Your task to perform on an android device: Search for usb-b on costco.com, select the first entry, and add it to the cart. Image 0: 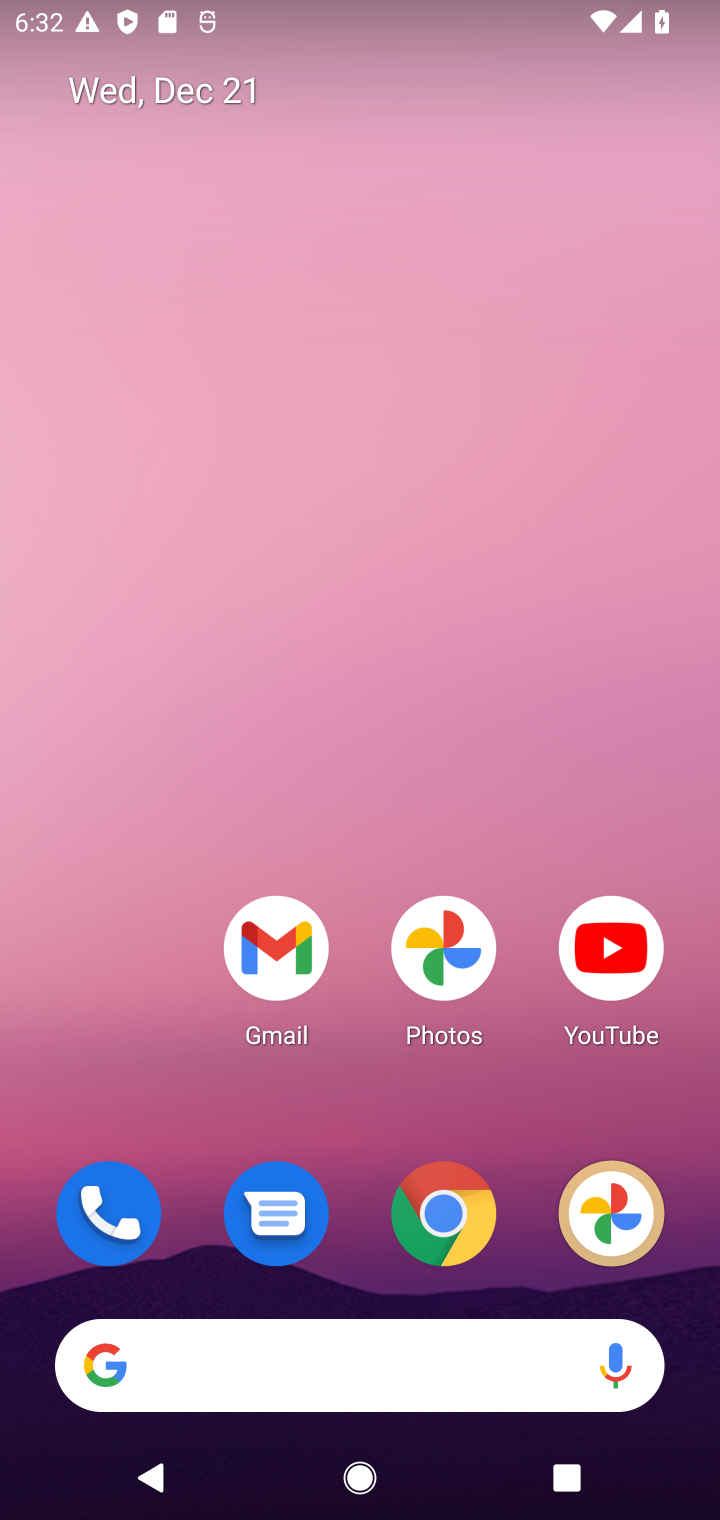
Step 0: press home button
Your task to perform on an android device: Search for usb-b on costco.com, select the first entry, and add it to the cart. Image 1: 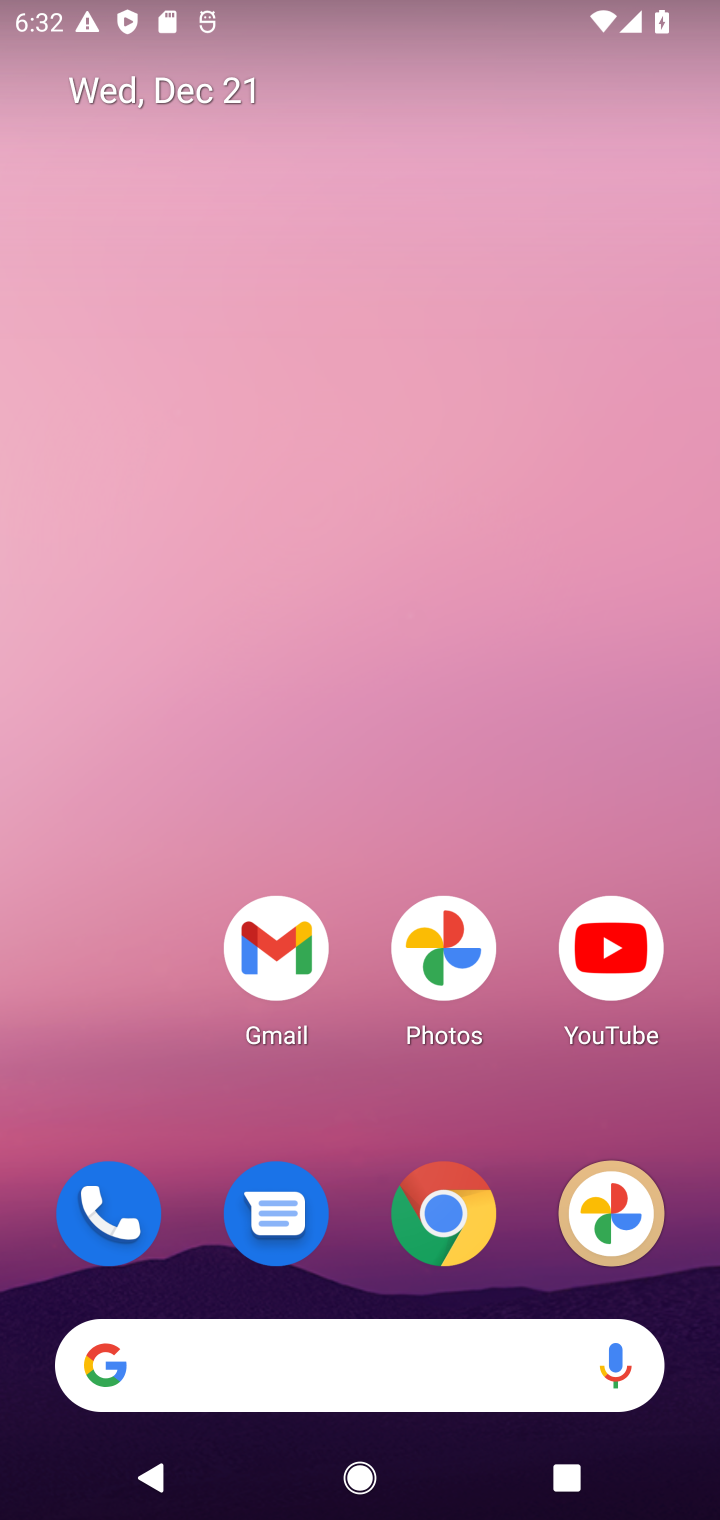
Step 1: click (475, 1201)
Your task to perform on an android device: Search for usb-b on costco.com, select the first entry, and add it to the cart. Image 2: 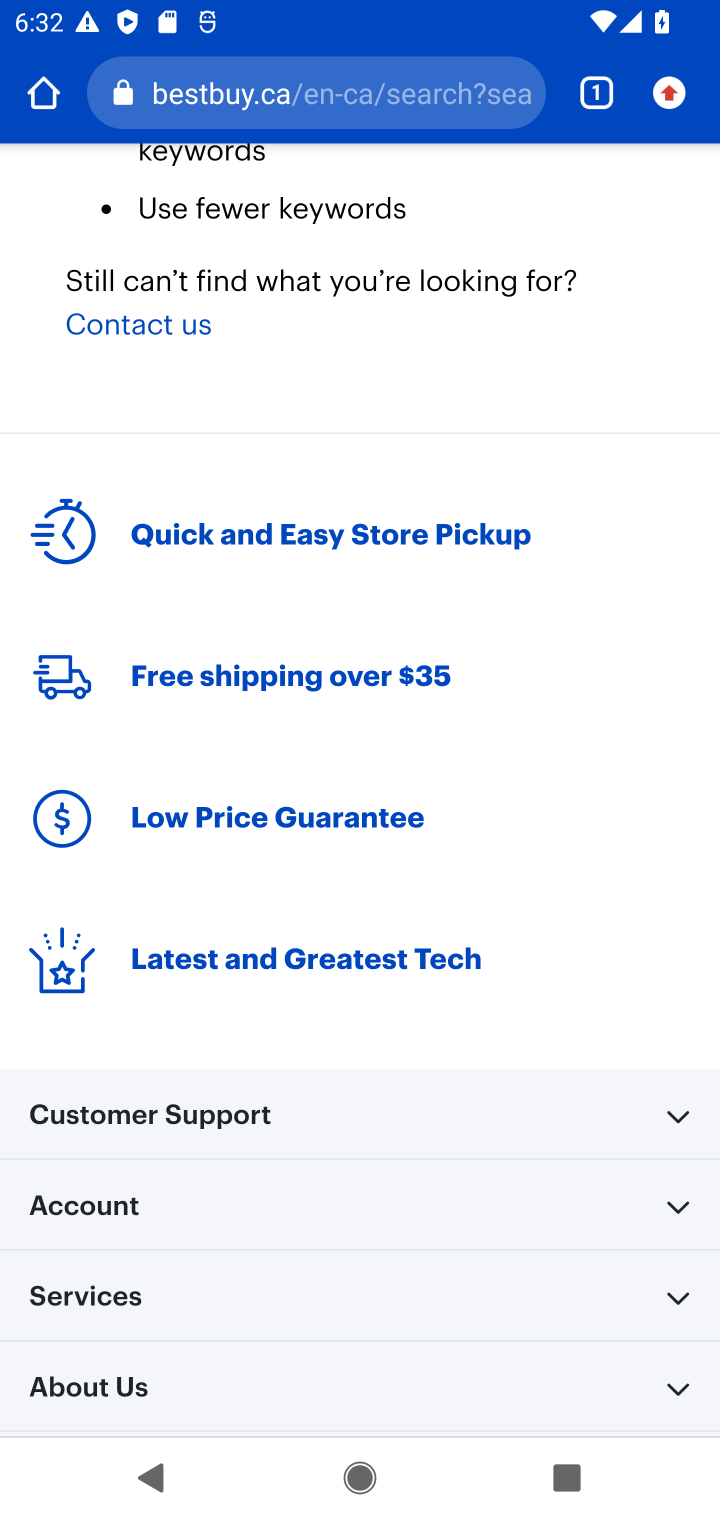
Step 2: click (270, 114)
Your task to perform on an android device: Search for usb-b on costco.com, select the first entry, and add it to the cart. Image 3: 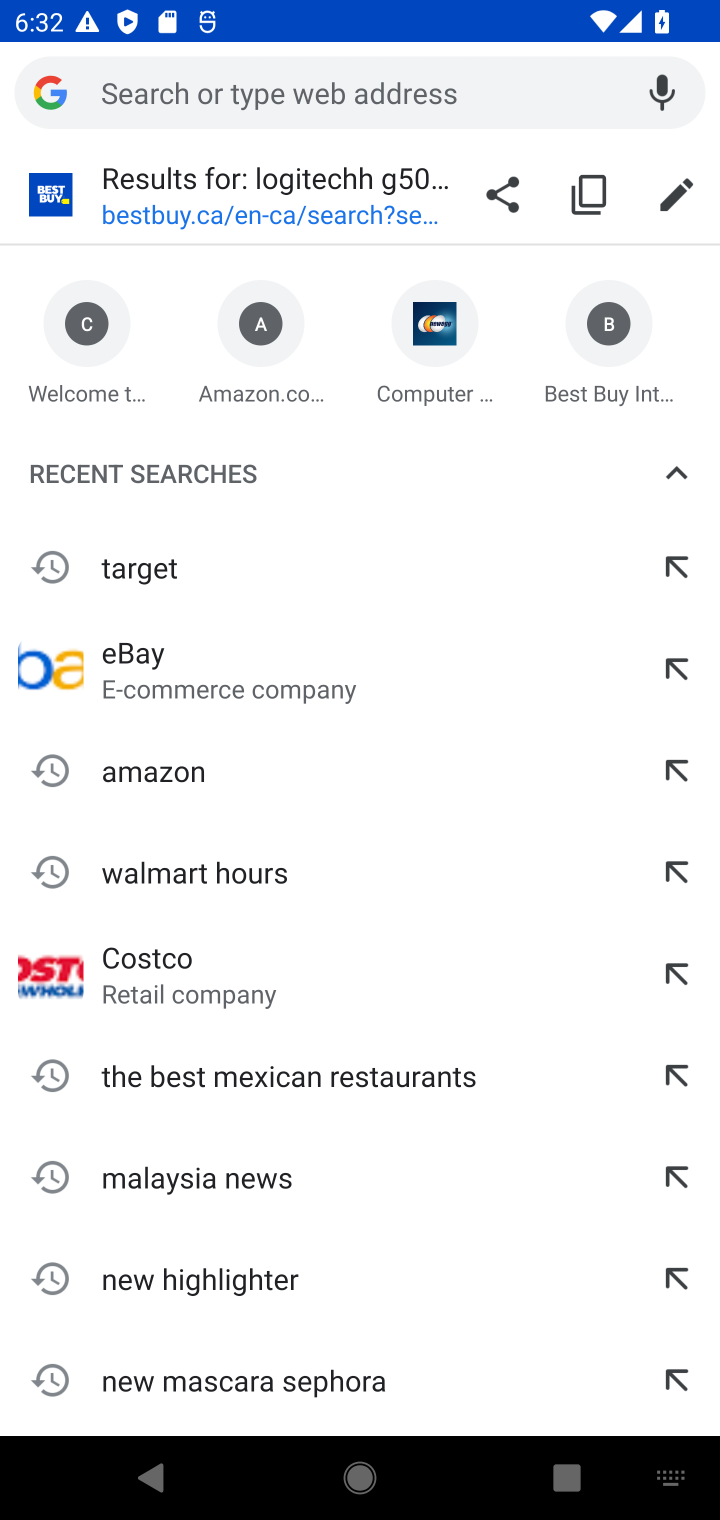
Step 3: type "costco"
Your task to perform on an android device: Search for usb-b on costco.com, select the first entry, and add it to the cart. Image 4: 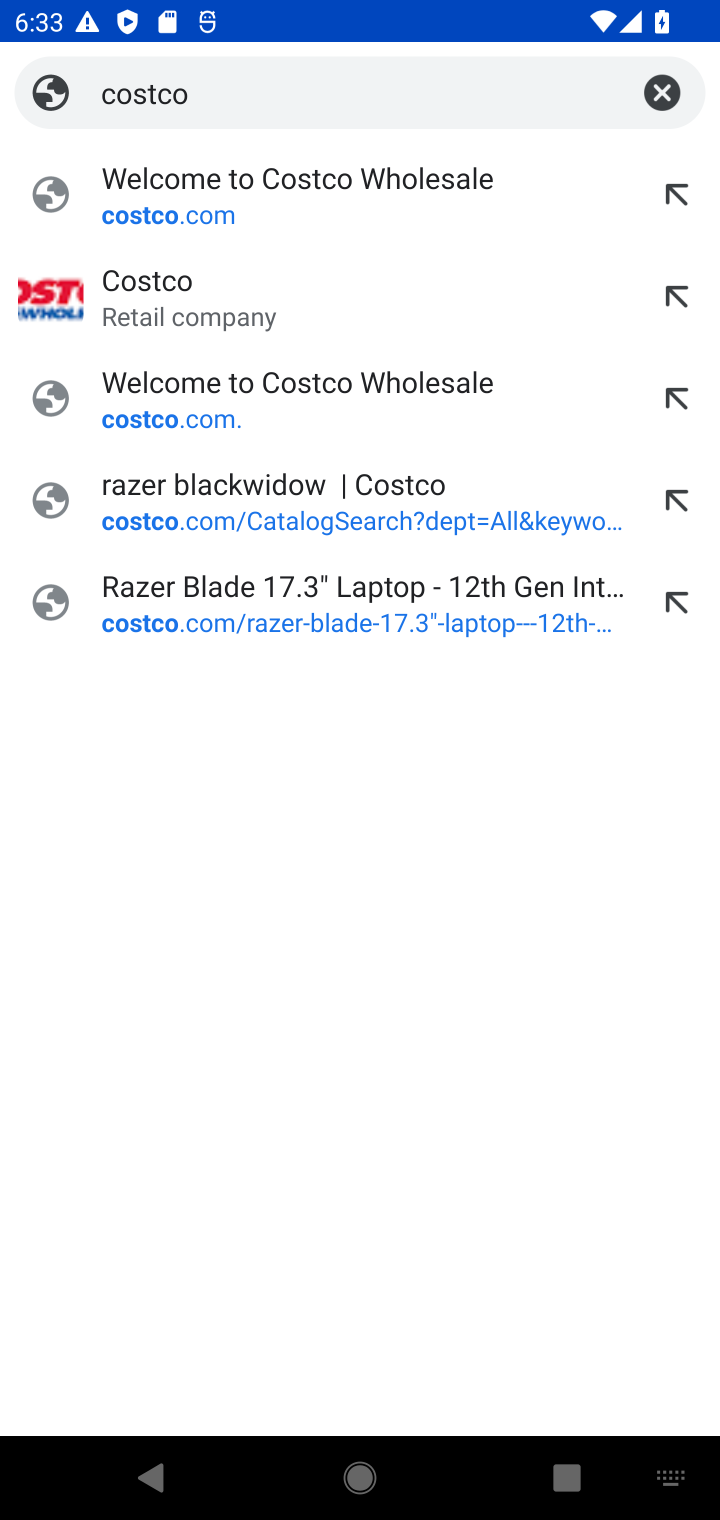
Step 4: click (194, 196)
Your task to perform on an android device: Search for usb-b on costco.com, select the first entry, and add it to the cart. Image 5: 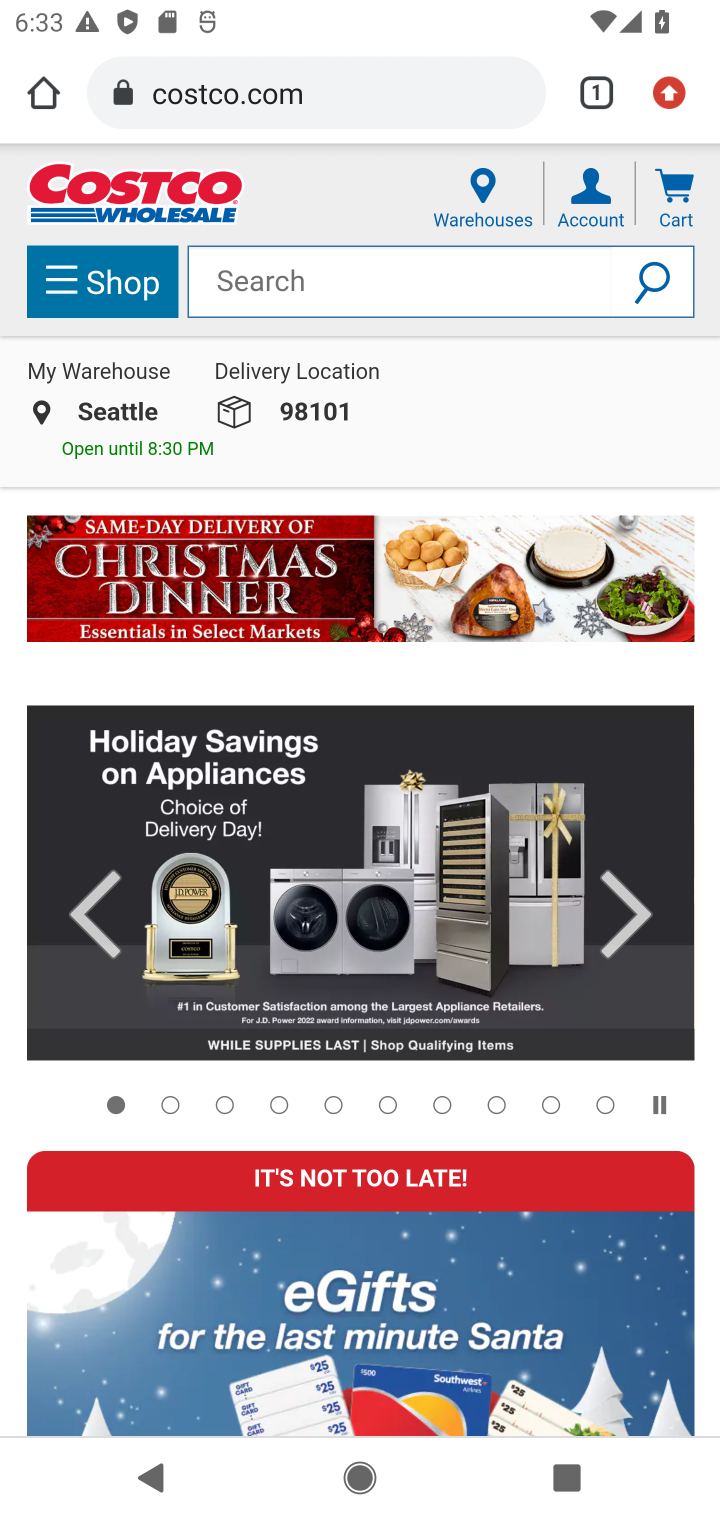
Step 5: click (241, 278)
Your task to perform on an android device: Search for usb-b on costco.com, select the first entry, and add it to the cart. Image 6: 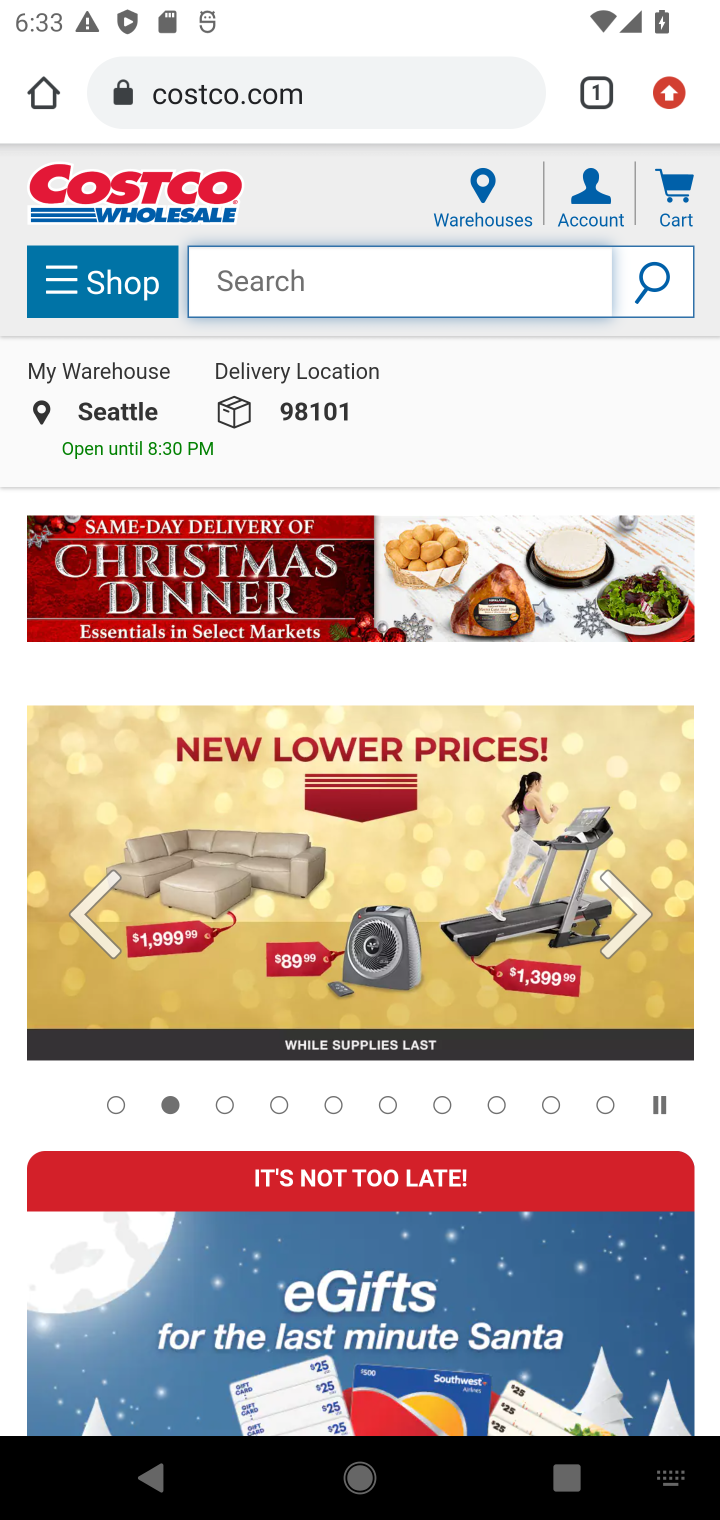
Step 6: type "usb-b"
Your task to perform on an android device: Search for usb-b on costco.com, select the first entry, and add it to the cart. Image 7: 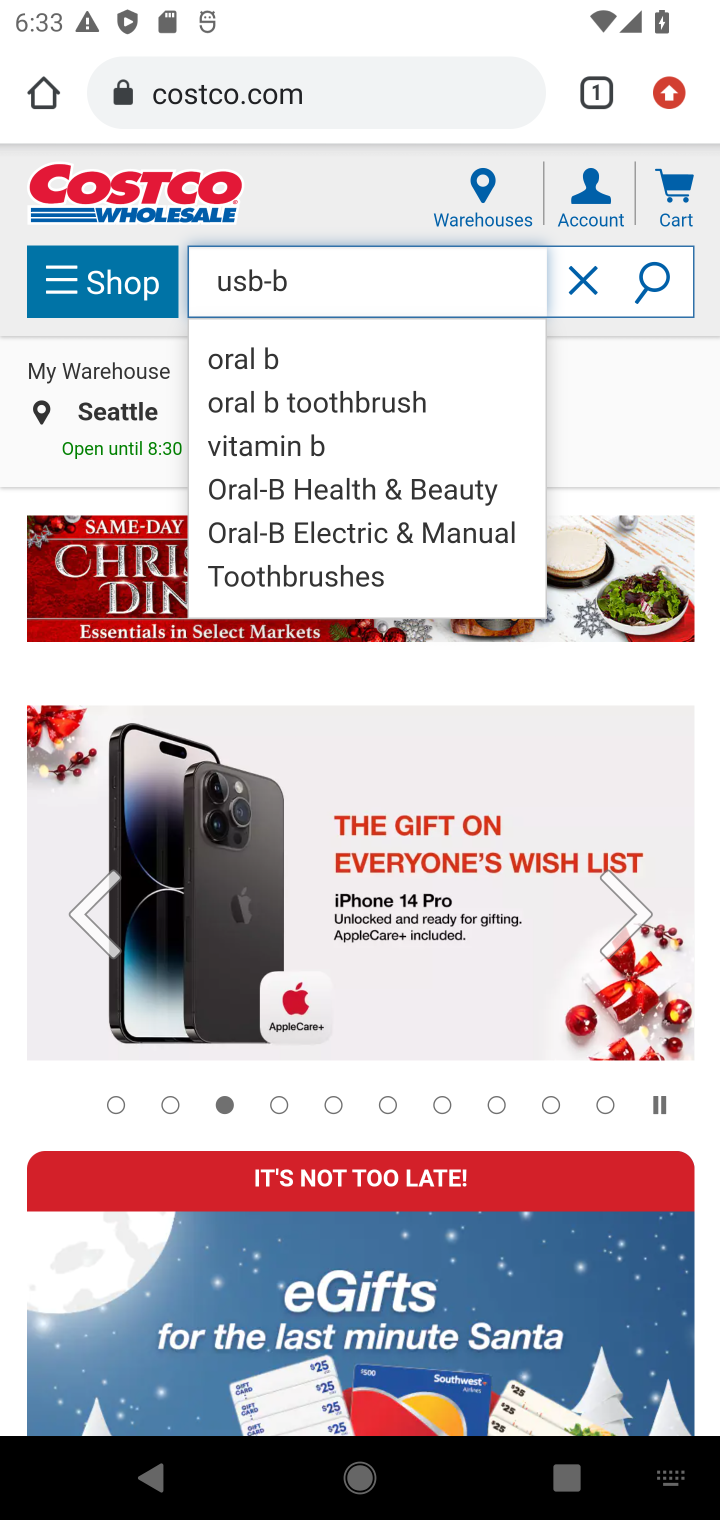
Step 7: click (643, 306)
Your task to perform on an android device: Search for usb-b on costco.com, select the first entry, and add it to the cart. Image 8: 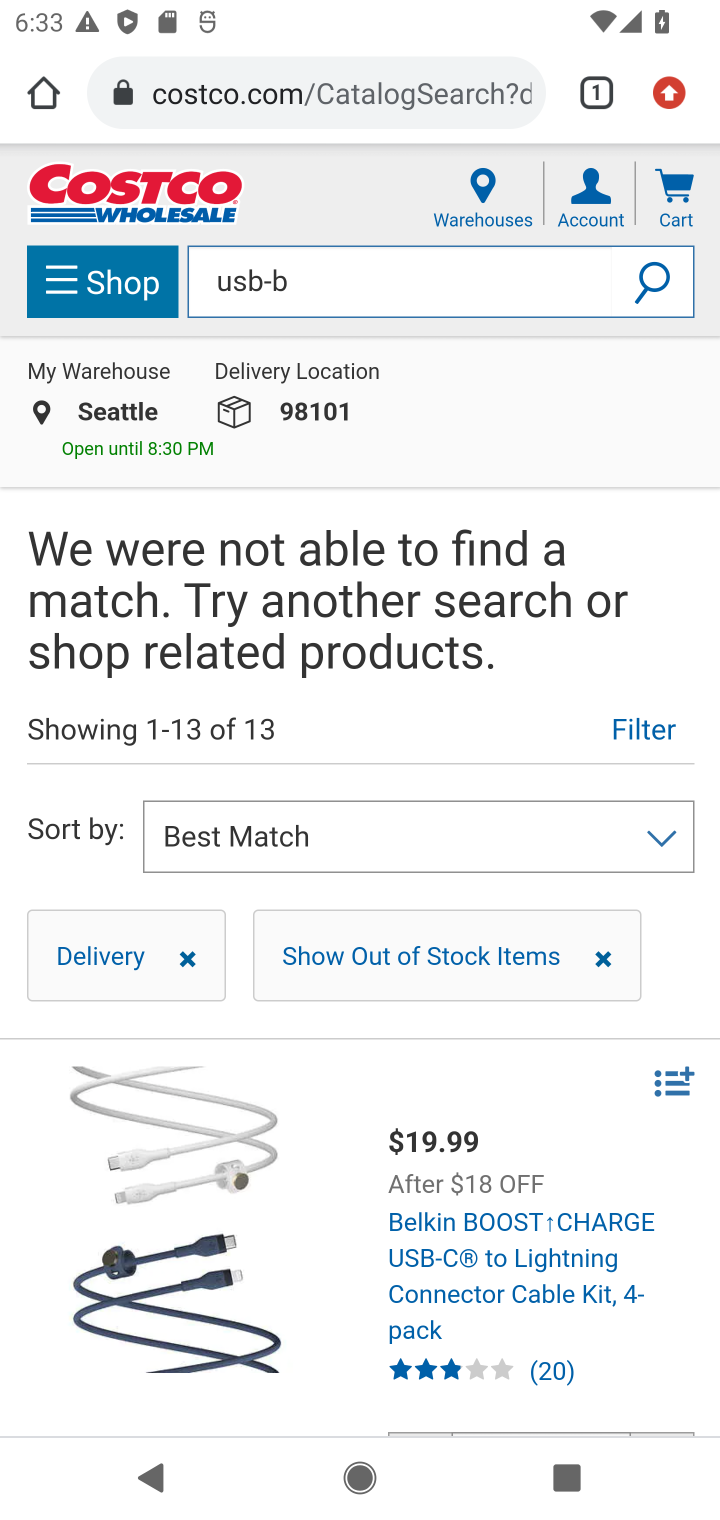
Step 8: click (500, 1243)
Your task to perform on an android device: Search for usb-b on costco.com, select the first entry, and add it to the cart. Image 9: 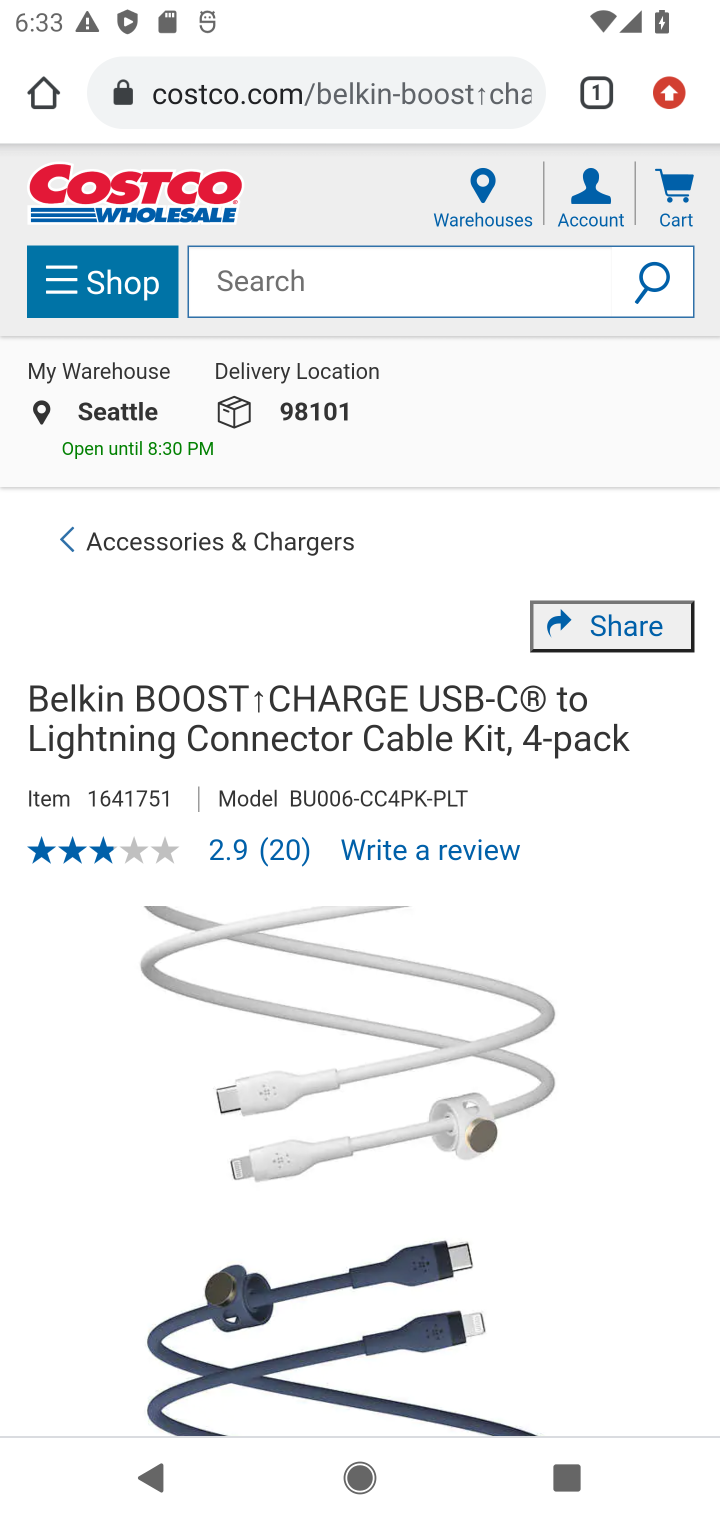
Step 9: drag from (432, 1387) to (310, 614)
Your task to perform on an android device: Search for usb-b on costco.com, select the first entry, and add it to the cart. Image 10: 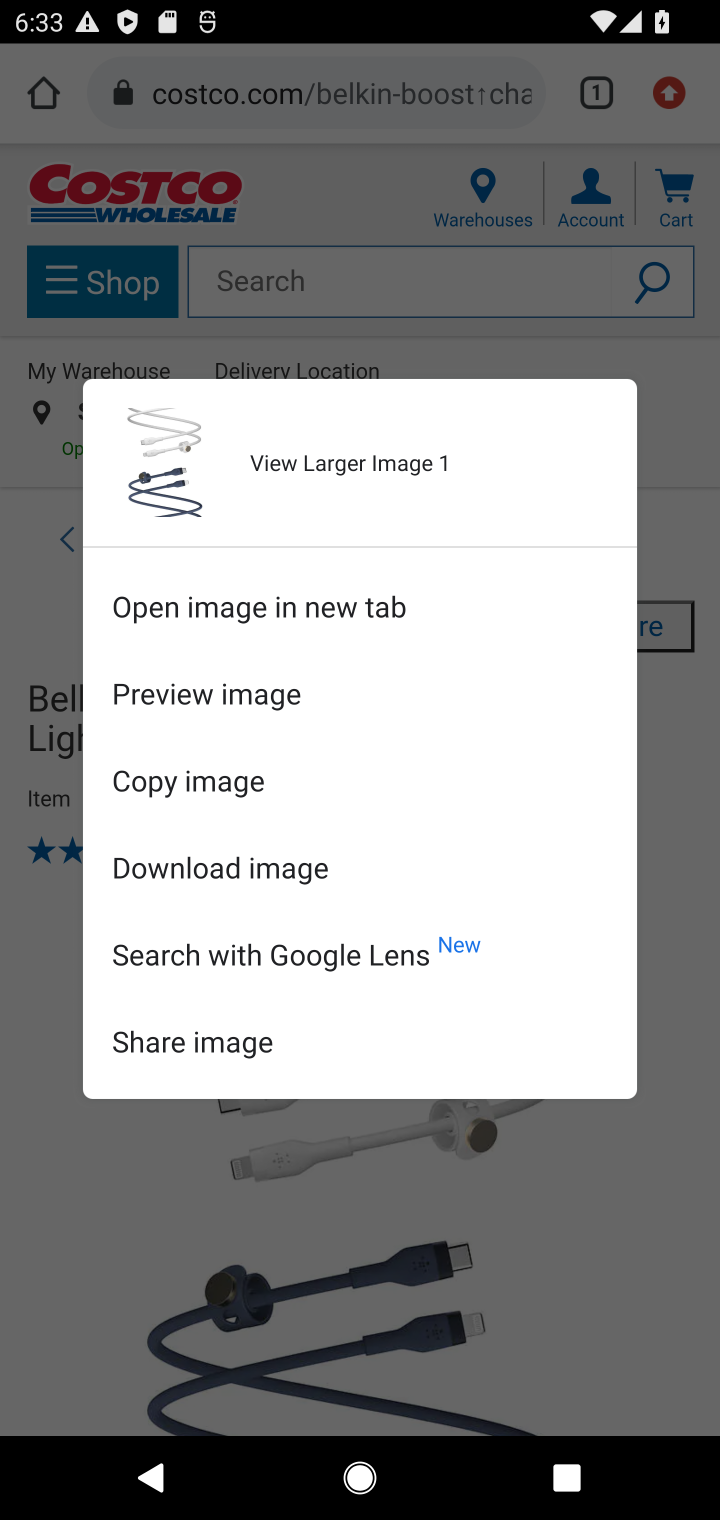
Step 10: click (456, 1190)
Your task to perform on an android device: Search for usb-b on costco.com, select the first entry, and add it to the cart. Image 11: 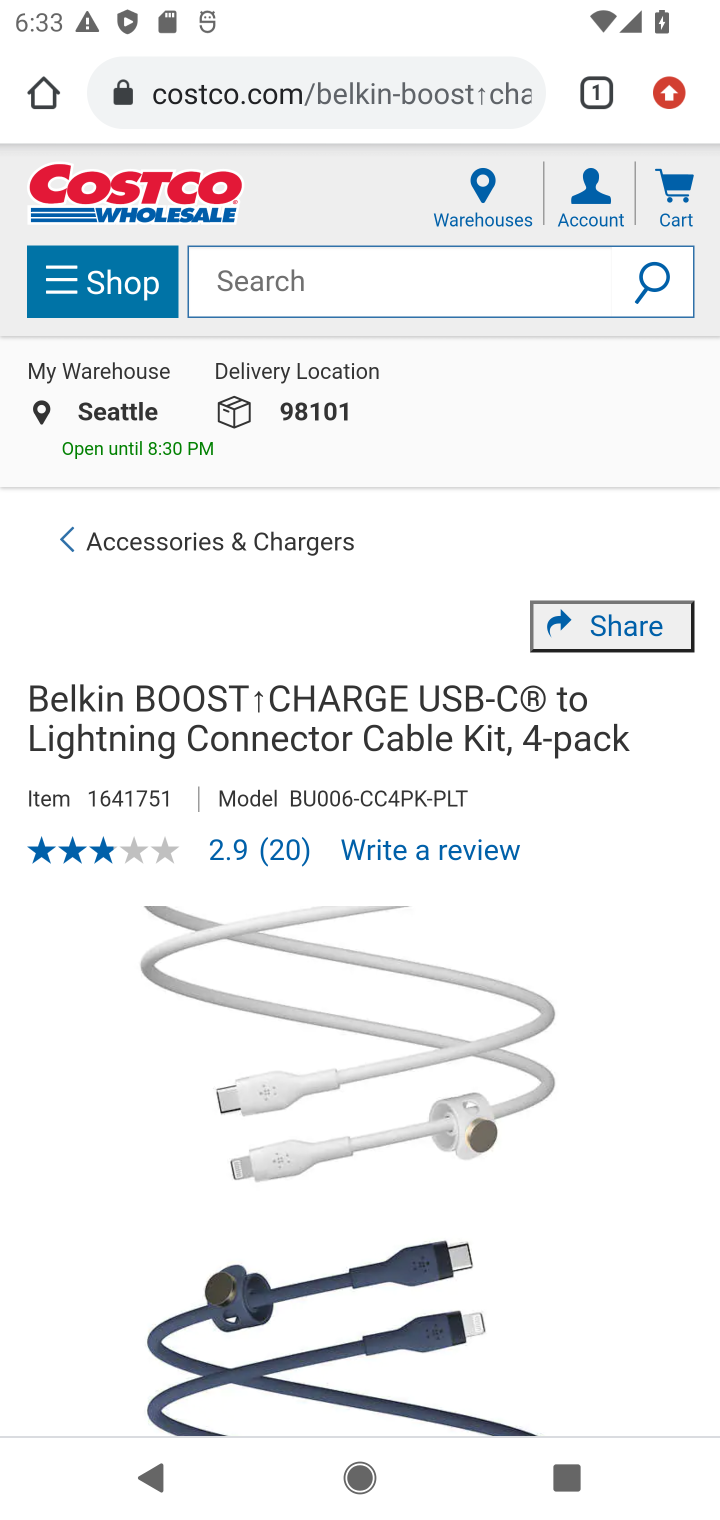
Step 11: drag from (486, 1333) to (525, 784)
Your task to perform on an android device: Search for usb-b on costco.com, select the first entry, and add it to the cart. Image 12: 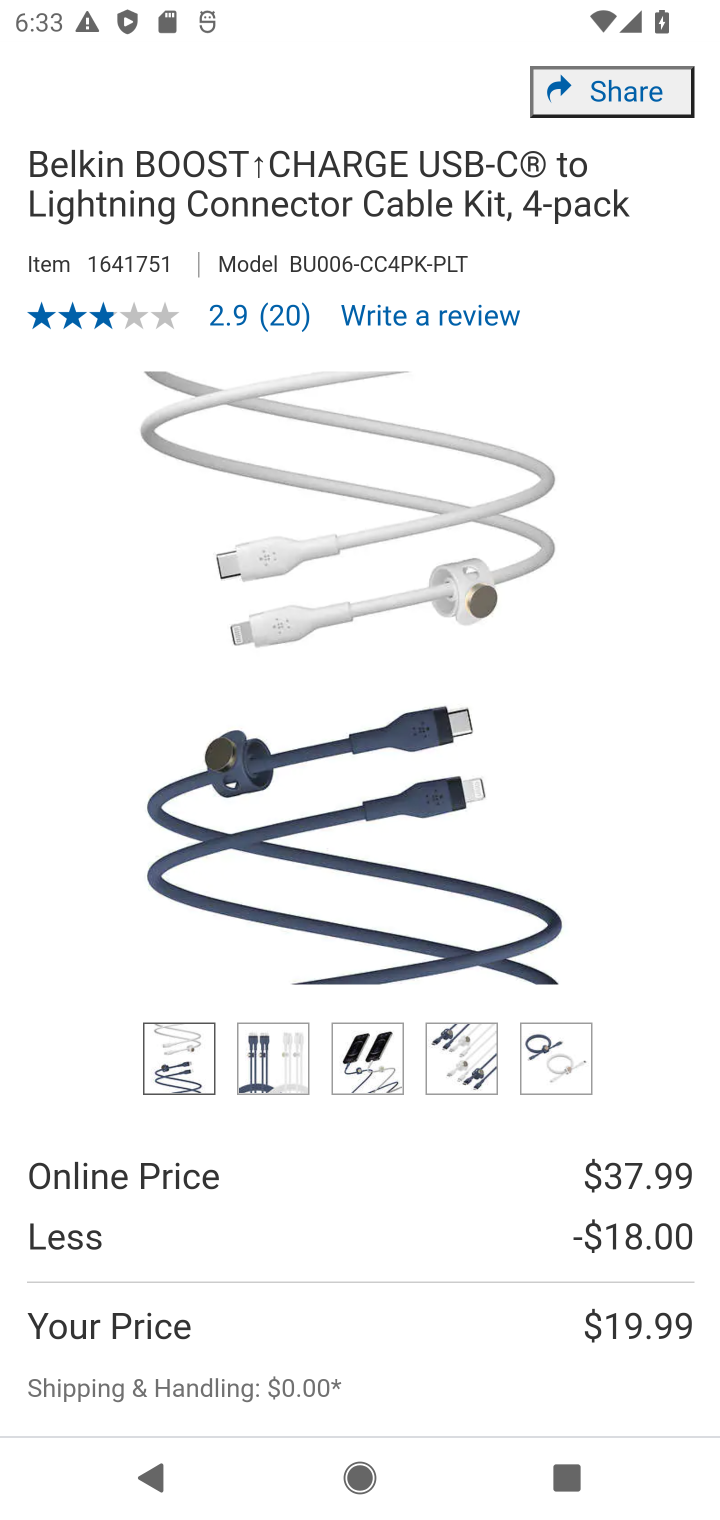
Step 12: drag from (483, 1256) to (521, 881)
Your task to perform on an android device: Search for usb-b on costco.com, select the first entry, and add it to the cart. Image 13: 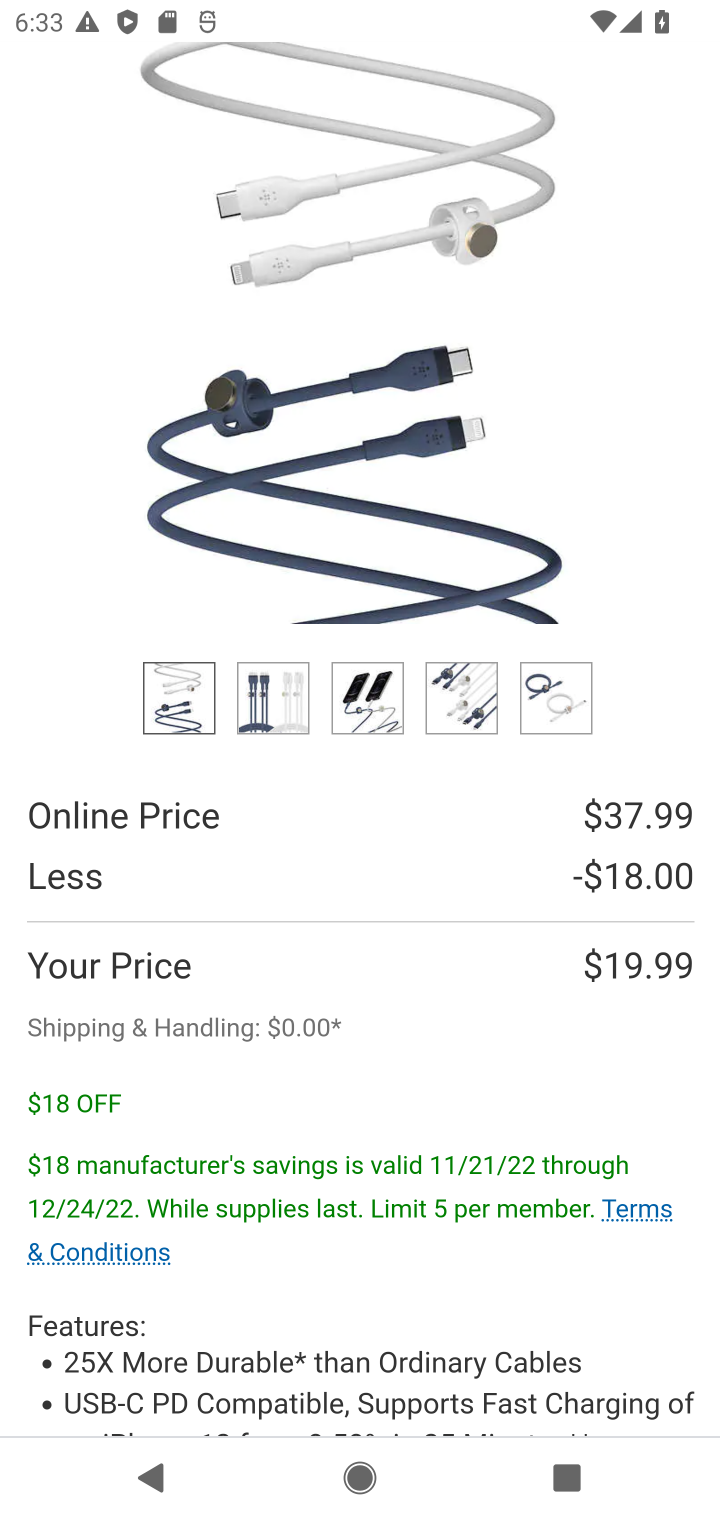
Step 13: drag from (536, 1304) to (540, 601)
Your task to perform on an android device: Search for usb-b on costco.com, select the first entry, and add it to the cart. Image 14: 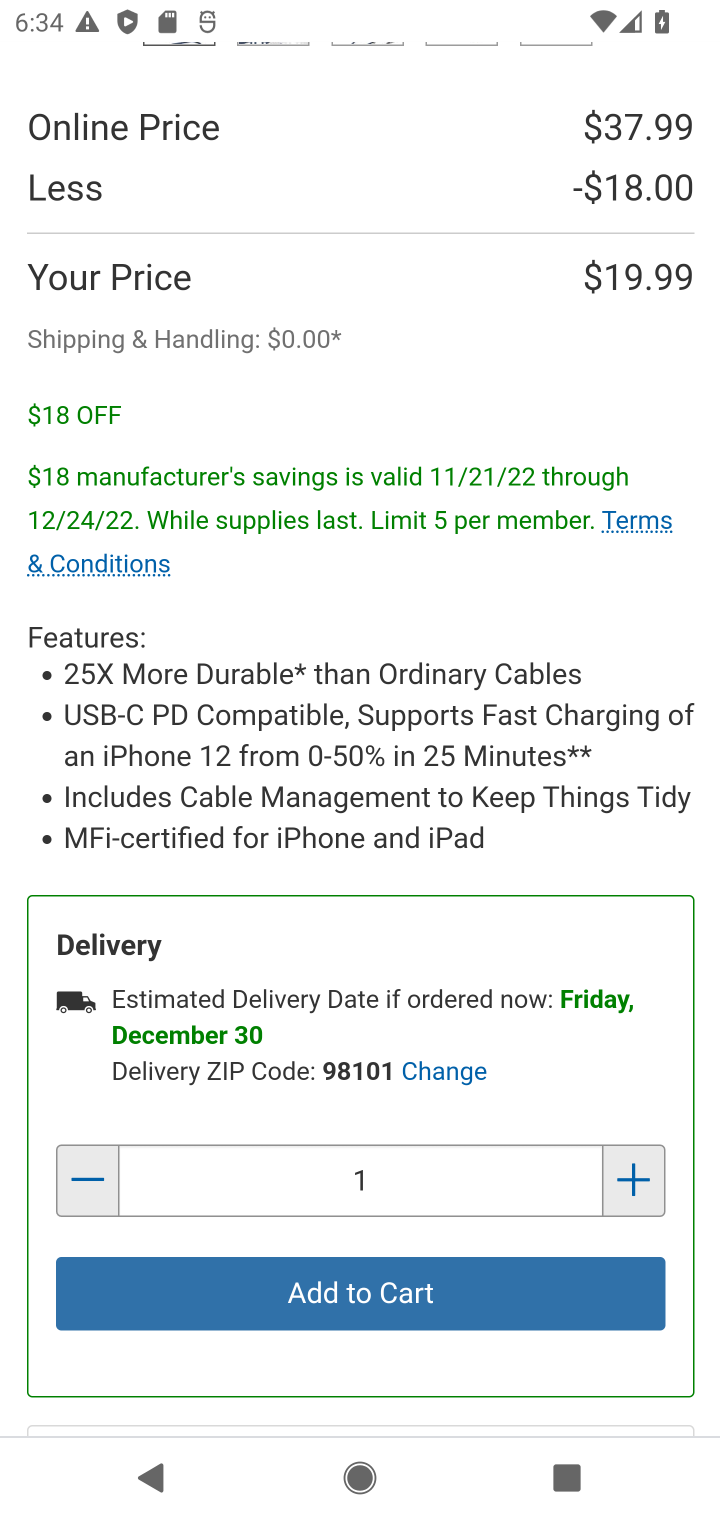
Step 14: click (490, 1267)
Your task to perform on an android device: Search for usb-b on costco.com, select the first entry, and add it to the cart. Image 15: 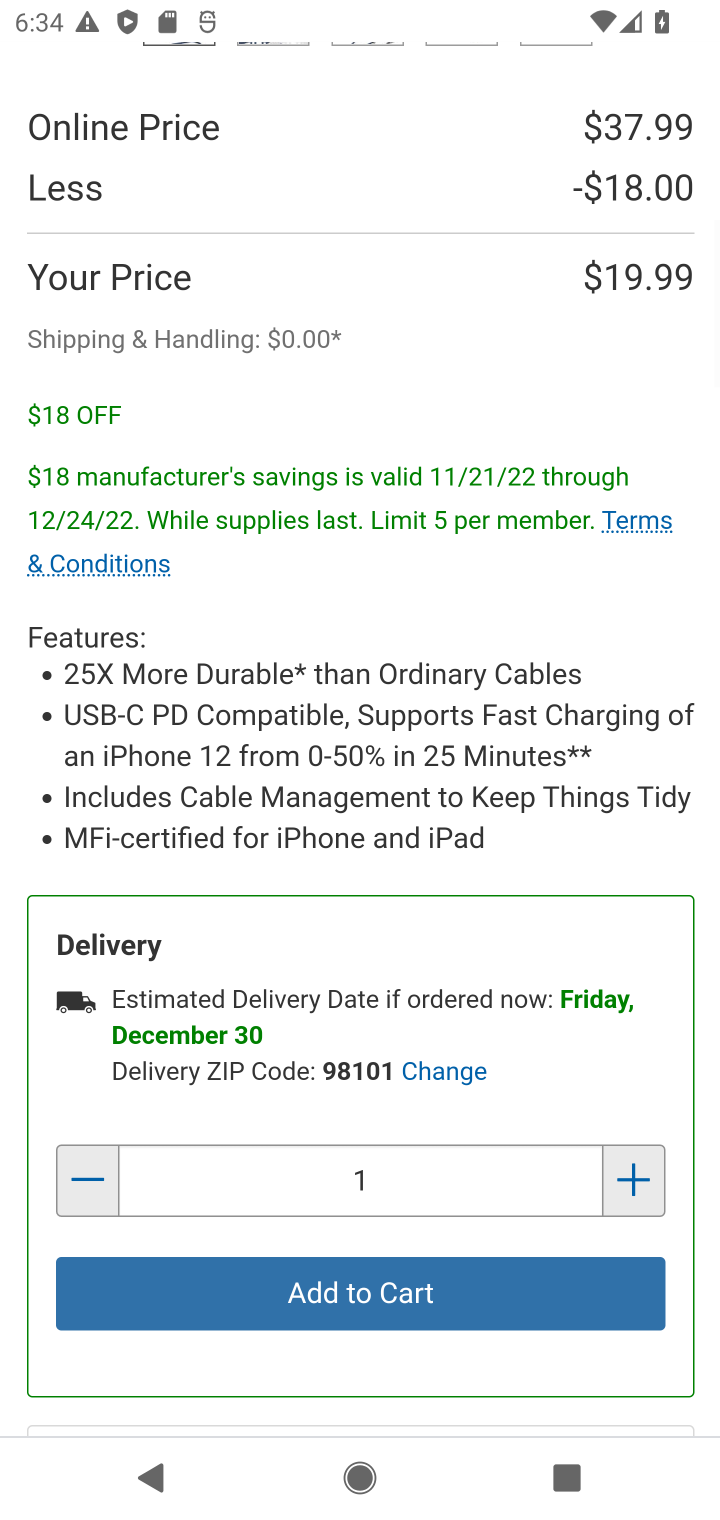
Step 15: task complete